Your task to perform on an android device: Show me popular videos on Youtube Image 0: 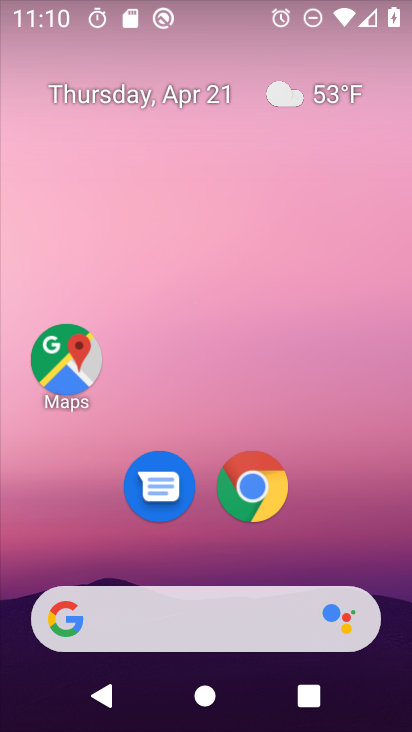
Step 0: drag from (382, 470) to (366, 213)
Your task to perform on an android device: Show me popular videos on Youtube Image 1: 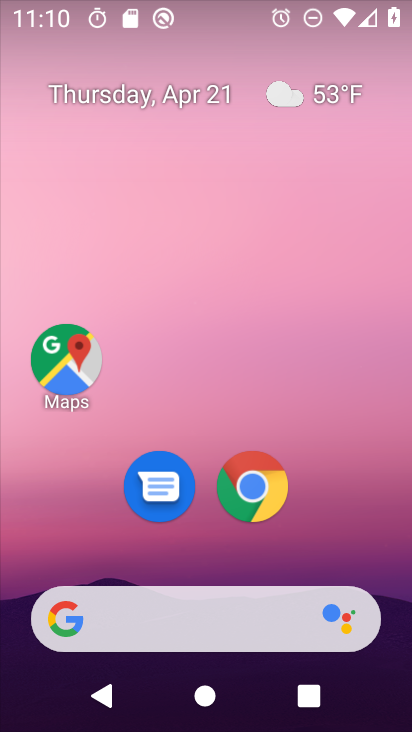
Step 1: drag from (379, 536) to (370, 205)
Your task to perform on an android device: Show me popular videos on Youtube Image 2: 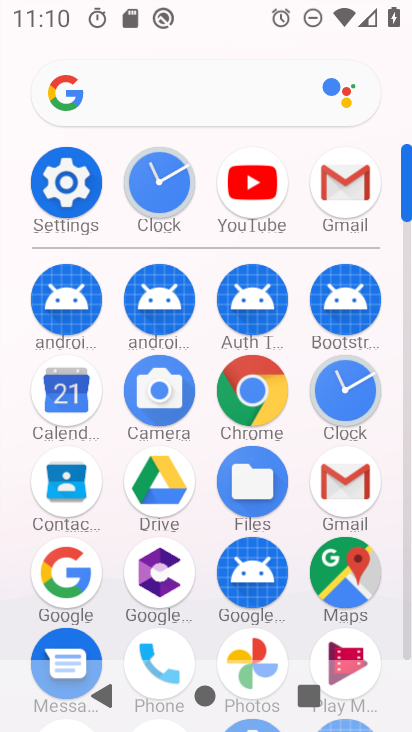
Step 2: drag from (405, 166) to (405, 106)
Your task to perform on an android device: Show me popular videos on Youtube Image 3: 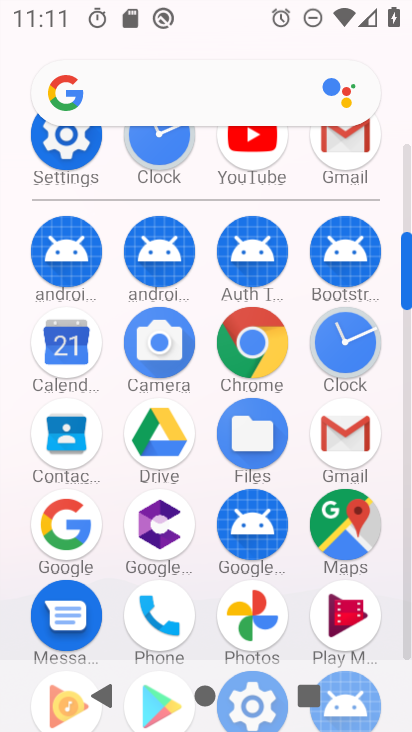
Step 3: drag from (405, 249) to (404, 134)
Your task to perform on an android device: Show me popular videos on Youtube Image 4: 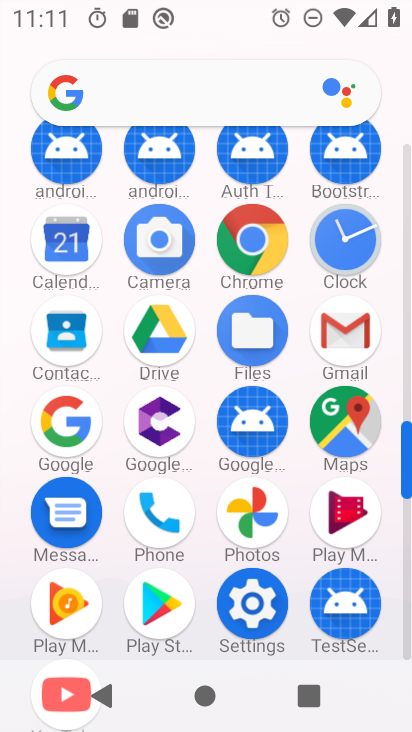
Step 4: drag from (403, 384) to (404, 218)
Your task to perform on an android device: Show me popular videos on Youtube Image 5: 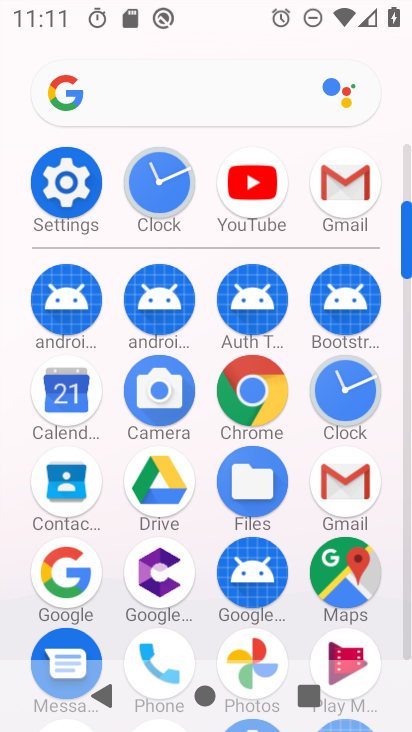
Step 5: click (261, 199)
Your task to perform on an android device: Show me popular videos on Youtube Image 6: 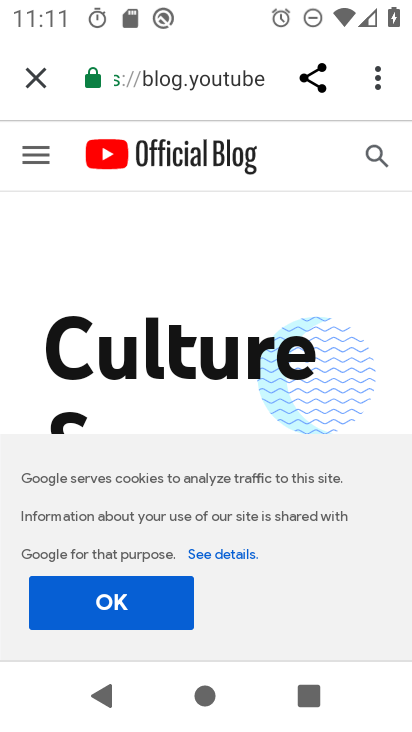
Step 6: press back button
Your task to perform on an android device: Show me popular videos on Youtube Image 7: 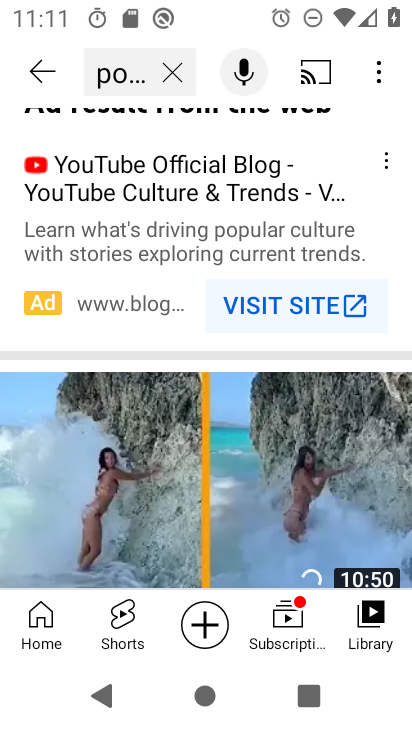
Step 7: click (274, 235)
Your task to perform on an android device: Show me popular videos on Youtube Image 8: 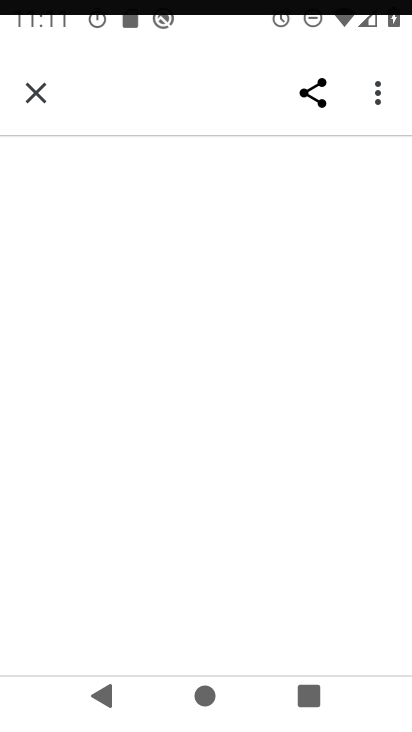
Step 8: task complete